Your task to perform on an android device: search for starred emails in the gmail app Image 0: 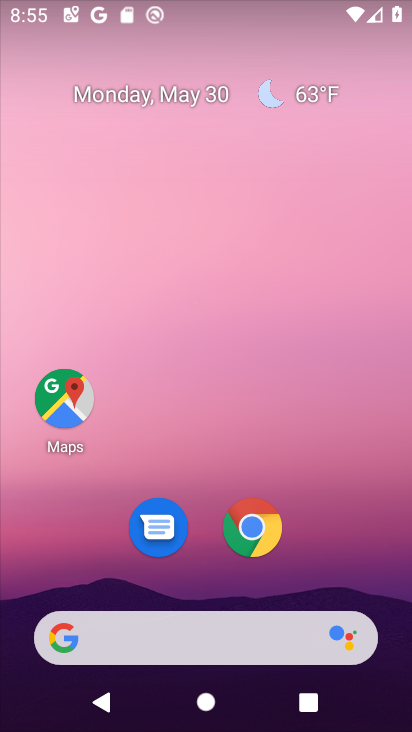
Step 0: drag from (300, 587) to (271, 227)
Your task to perform on an android device: search for starred emails in the gmail app Image 1: 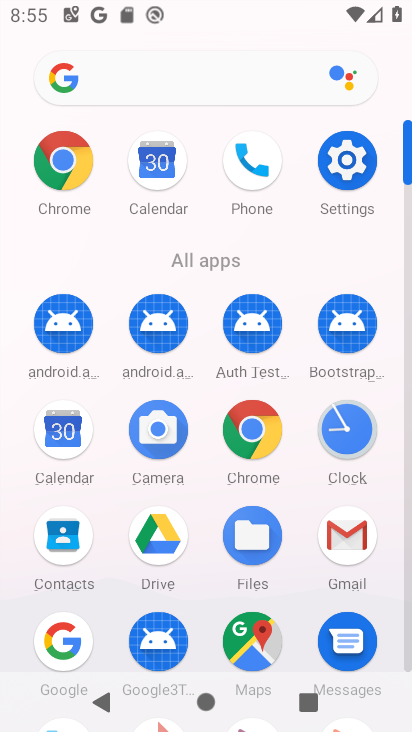
Step 1: drag from (209, 597) to (239, 273)
Your task to perform on an android device: search for starred emails in the gmail app Image 2: 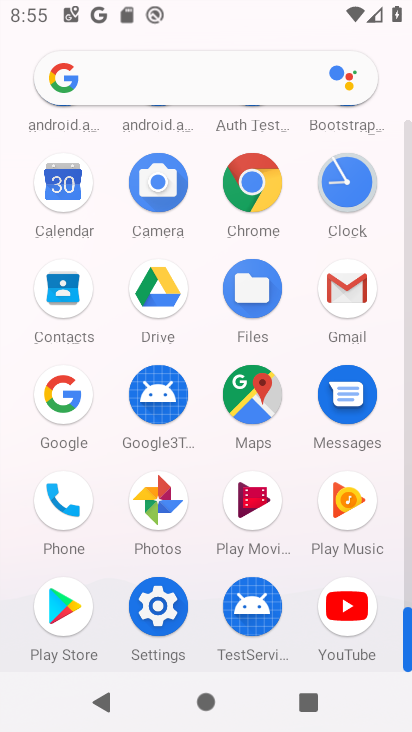
Step 2: drag from (184, 287) to (183, 594)
Your task to perform on an android device: search for starred emails in the gmail app Image 3: 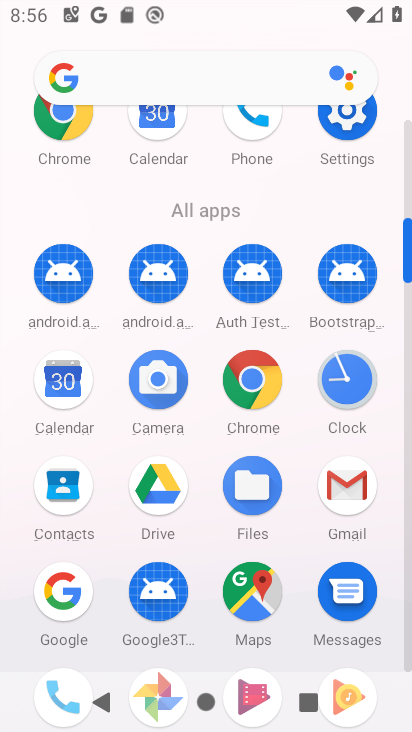
Step 3: drag from (221, 316) to (226, 662)
Your task to perform on an android device: search for starred emails in the gmail app Image 4: 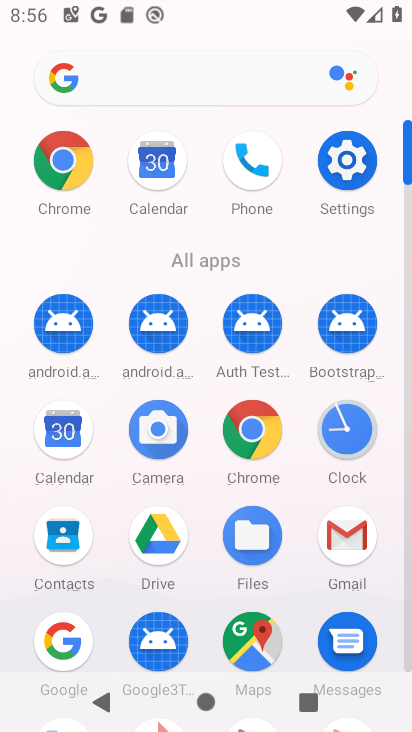
Step 4: drag from (194, 599) to (228, 278)
Your task to perform on an android device: search for starred emails in the gmail app Image 5: 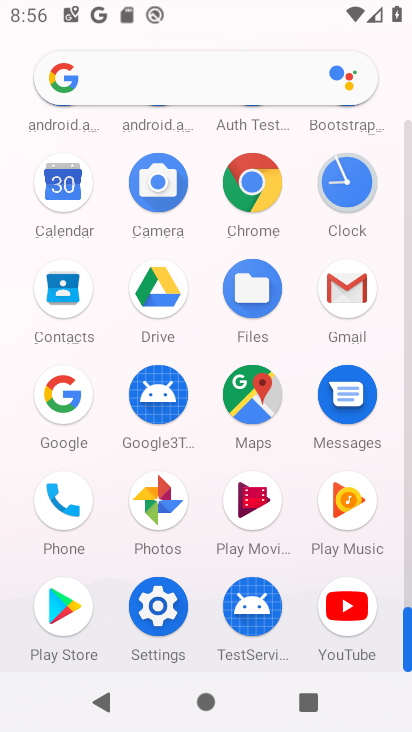
Step 5: click (247, 385)
Your task to perform on an android device: search for starred emails in the gmail app Image 6: 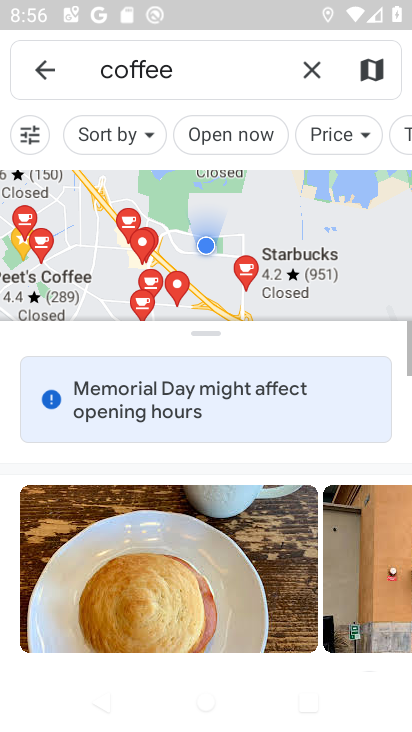
Step 6: click (311, 85)
Your task to perform on an android device: search for starred emails in the gmail app Image 7: 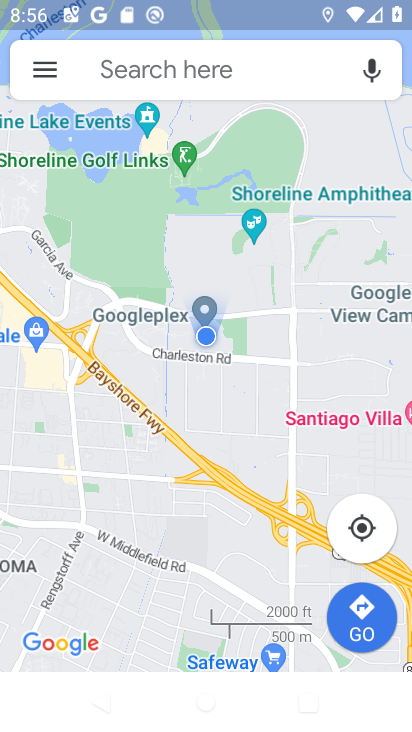
Step 7: press home button
Your task to perform on an android device: search for starred emails in the gmail app Image 8: 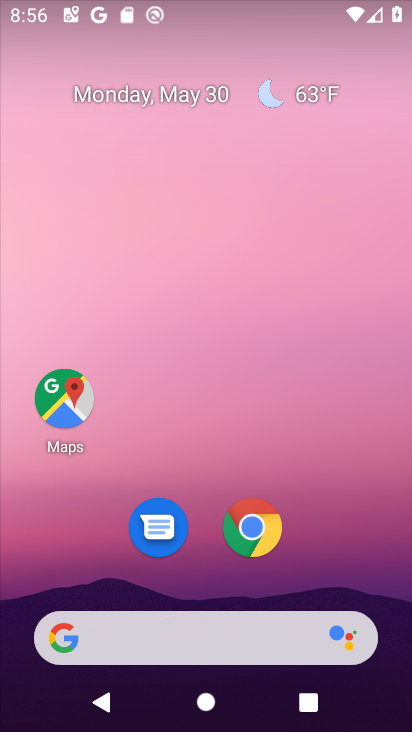
Step 8: drag from (231, 532) to (254, 86)
Your task to perform on an android device: search for starred emails in the gmail app Image 9: 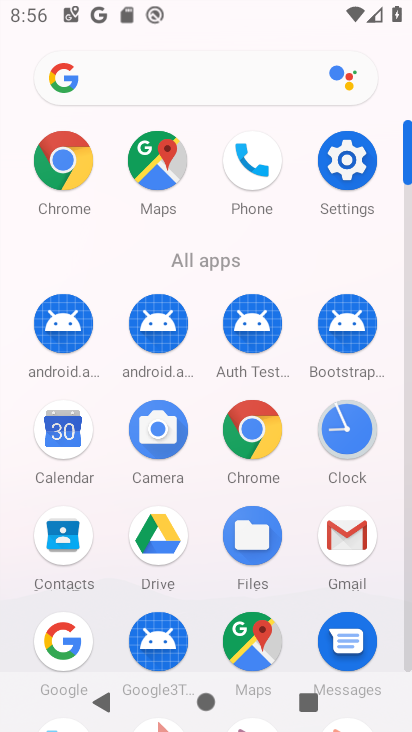
Step 9: click (352, 532)
Your task to perform on an android device: search for starred emails in the gmail app Image 10: 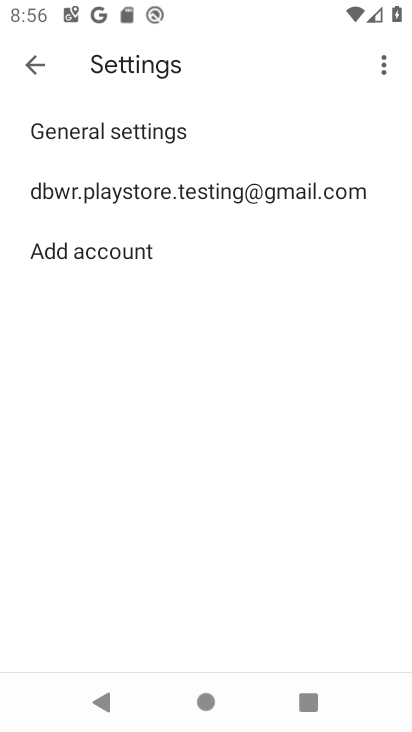
Step 10: click (44, 60)
Your task to perform on an android device: search for starred emails in the gmail app Image 11: 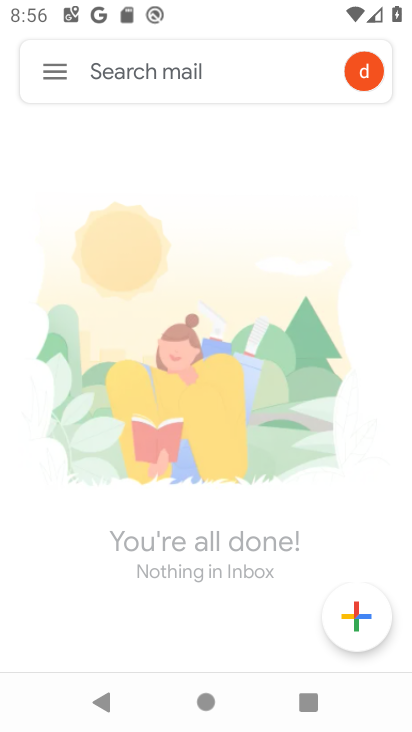
Step 11: click (60, 77)
Your task to perform on an android device: search for starred emails in the gmail app Image 12: 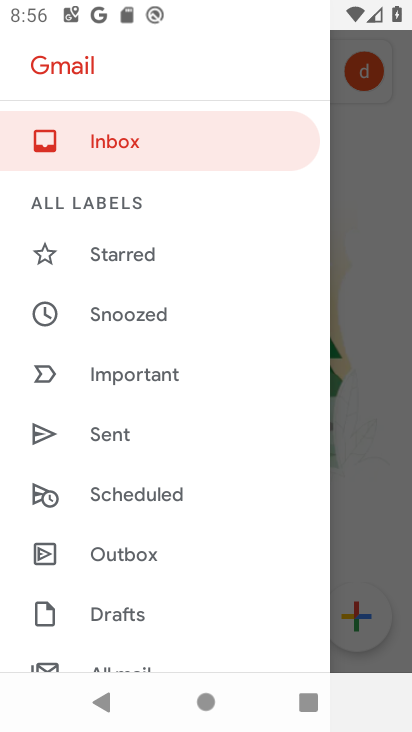
Step 12: click (146, 248)
Your task to perform on an android device: search for starred emails in the gmail app Image 13: 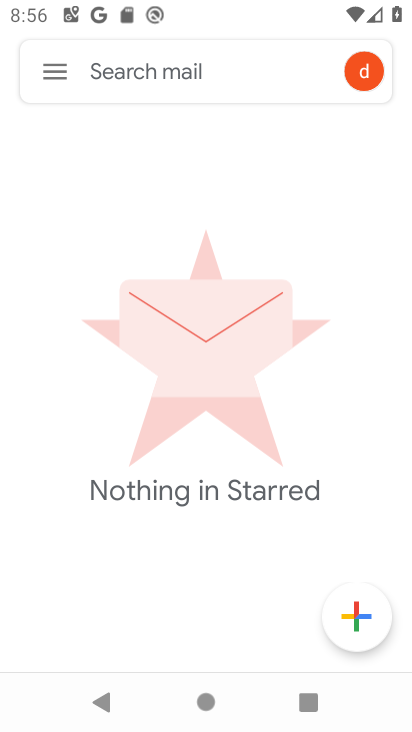
Step 13: task complete